Your task to perform on an android device: Open notification settings Image 0: 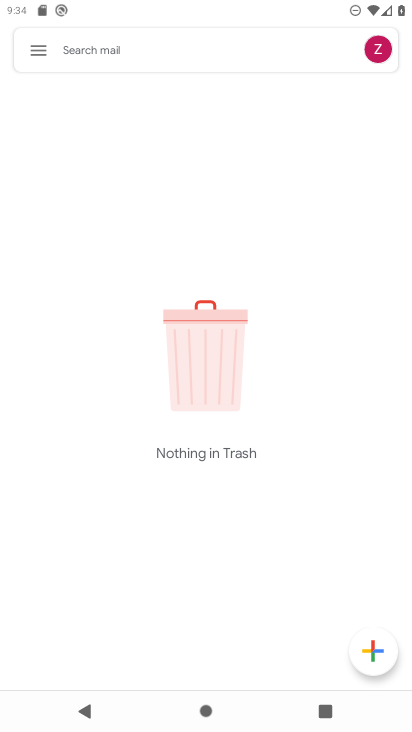
Step 0: press home button
Your task to perform on an android device: Open notification settings Image 1: 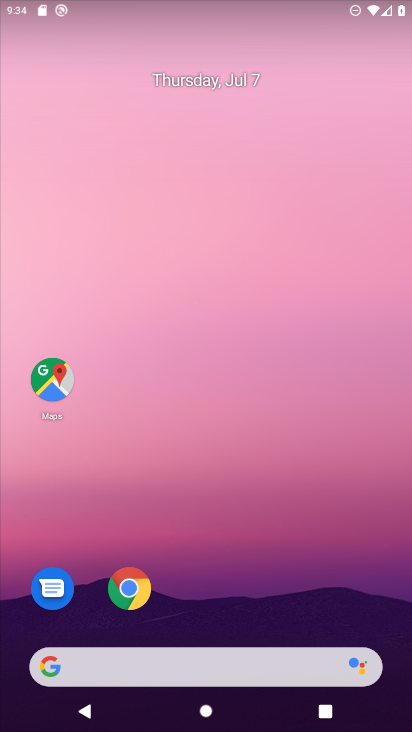
Step 1: drag from (185, 615) to (247, 41)
Your task to perform on an android device: Open notification settings Image 2: 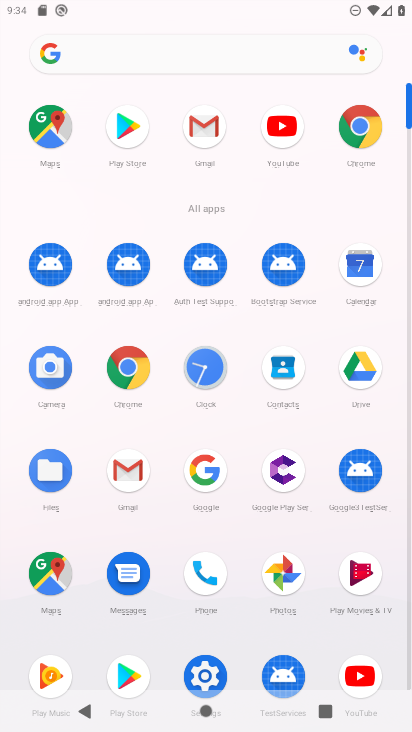
Step 2: click (187, 674)
Your task to perform on an android device: Open notification settings Image 3: 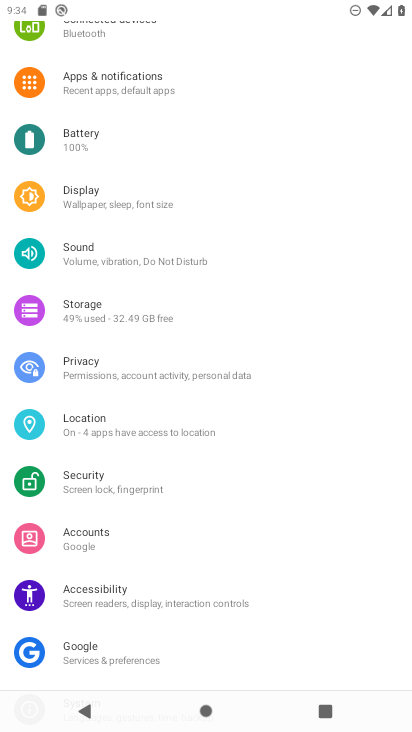
Step 3: click (173, 82)
Your task to perform on an android device: Open notification settings Image 4: 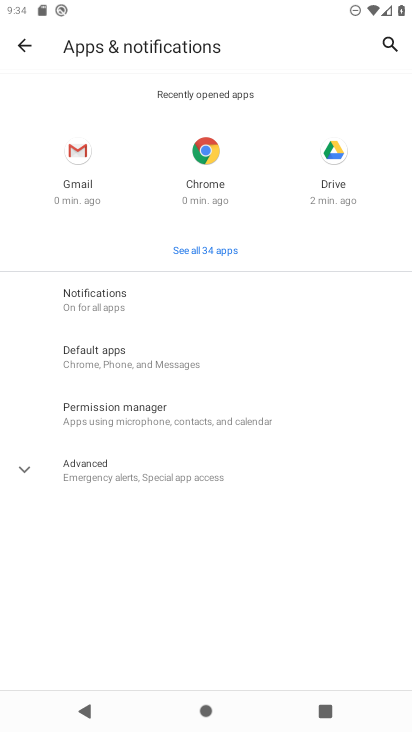
Step 4: task complete